Your task to perform on an android device: Clear the shopping cart on costco. Add usb-c to usb-a to the cart on costco Image 0: 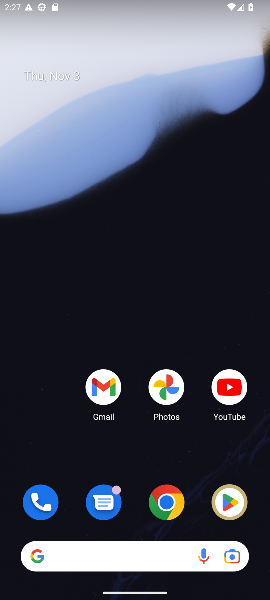
Step 0: drag from (169, 506) to (192, 253)
Your task to perform on an android device: Clear the shopping cart on costco. Add usb-c to usb-a to the cart on costco Image 1: 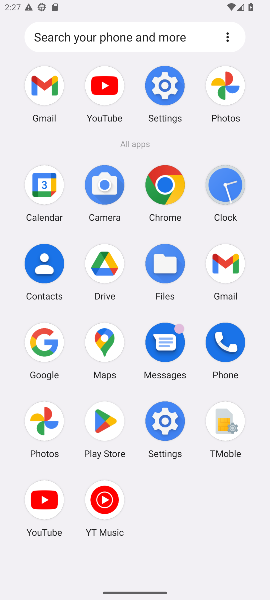
Step 1: click (50, 346)
Your task to perform on an android device: Clear the shopping cart on costco. Add usb-c to usb-a to the cart on costco Image 2: 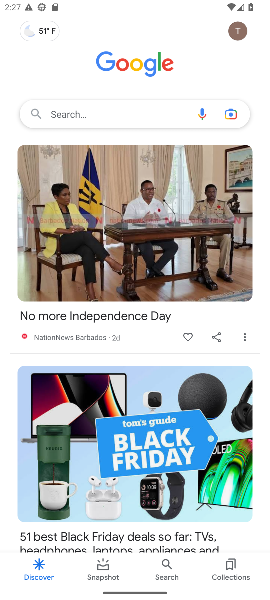
Step 2: click (139, 108)
Your task to perform on an android device: Clear the shopping cart on costco. Add usb-c to usb-a to the cart on costco Image 3: 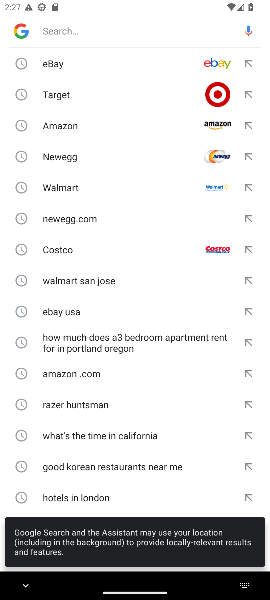
Step 3: type "costco"
Your task to perform on an android device: Clear the shopping cart on costco. Add usb-c to usb-a to the cart on costco Image 4: 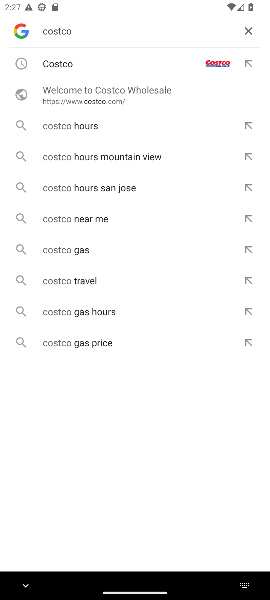
Step 4: click (152, 65)
Your task to perform on an android device: Clear the shopping cart on costco. Add usb-c to usb-a to the cart on costco Image 5: 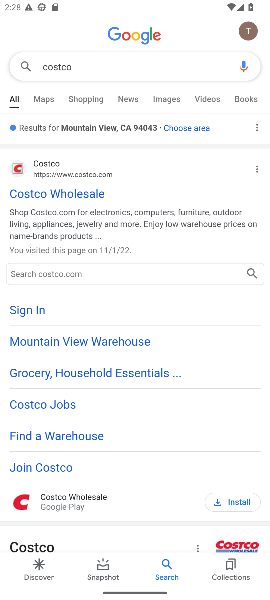
Step 5: click (70, 190)
Your task to perform on an android device: Clear the shopping cart on costco. Add usb-c to usb-a to the cart on costco Image 6: 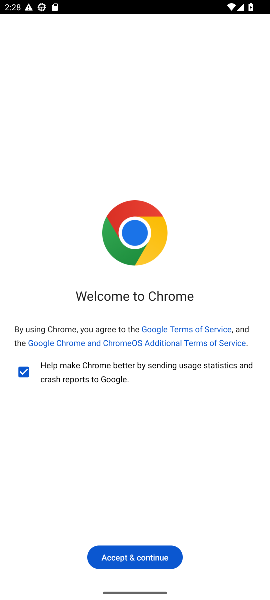
Step 6: click (148, 558)
Your task to perform on an android device: Clear the shopping cart on costco. Add usb-c to usb-a to the cart on costco Image 7: 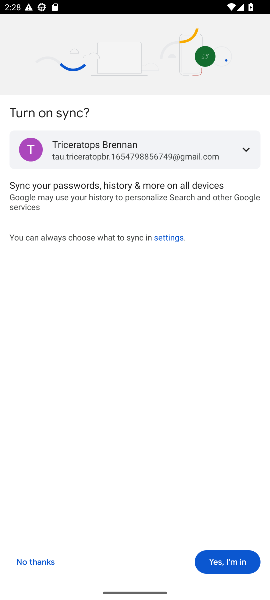
Step 7: click (219, 564)
Your task to perform on an android device: Clear the shopping cart on costco. Add usb-c to usb-a to the cart on costco Image 8: 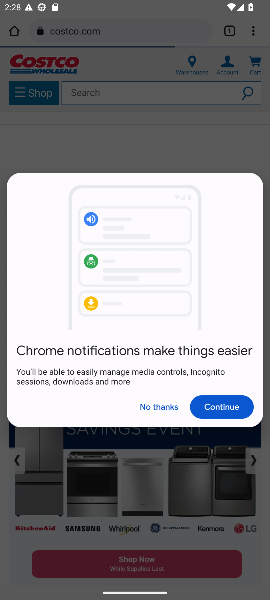
Step 8: click (238, 411)
Your task to perform on an android device: Clear the shopping cart on costco. Add usb-c to usb-a to the cart on costco Image 9: 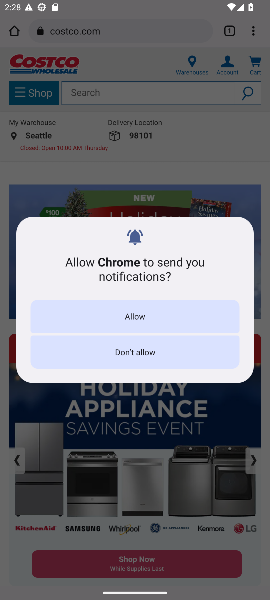
Step 9: click (165, 317)
Your task to perform on an android device: Clear the shopping cart on costco. Add usb-c to usb-a to the cart on costco Image 10: 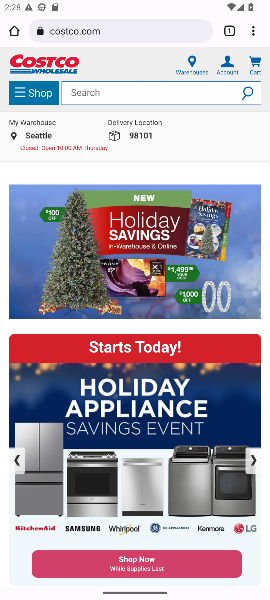
Step 10: click (125, 96)
Your task to perform on an android device: Clear the shopping cart on costco. Add usb-c to usb-a to the cart on costco Image 11: 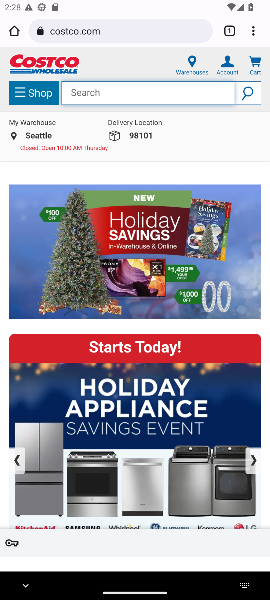
Step 11: type "usb-c to usb-a"
Your task to perform on an android device: Clear the shopping cart on costco. Add usb-c to usb-a to the cart on costco Image 12: 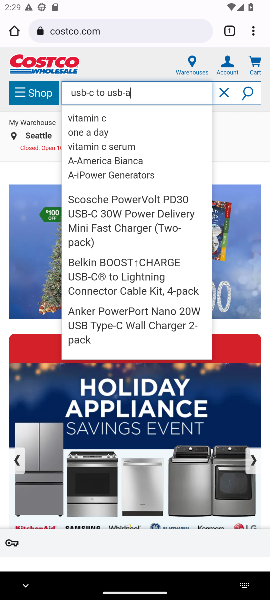
Step 12: click (240, 94)
Your task to perform on an android device: Clear the shopping cart on costco. Add usb-c to usb-a to the cart on costco Image 13: 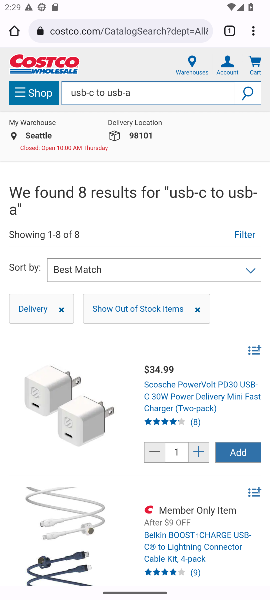
Step 13: click (254, 62)
Your task to perform on an android device: Clear the shopping cart on costco. Add usb-c to usb-a to the cart on costco Image 14: 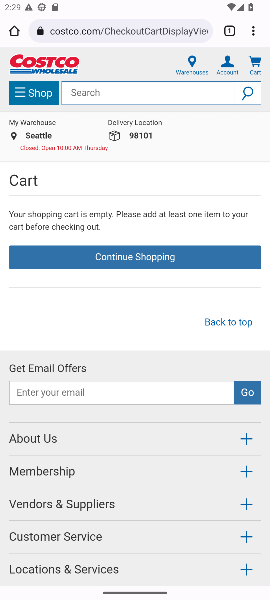
Step 14: press back button
Your task to perform on an android device: Clear the shopping cart on costco. Add usb-c to usb-a to the cart on costco Image 15: 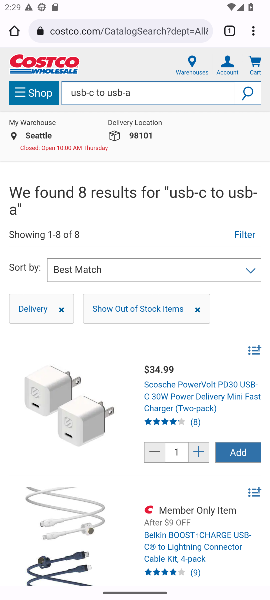
Step 15: click (238, 453)
Your task to perform on an android device: Clear the shopping cart on costco. Add usb-c to usb-a to the cart on costco Image 16: 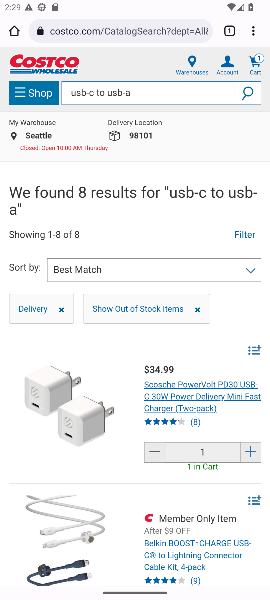
Step 16: task complete